Your task to perform on an android device: turn pop-ups off in chrome Image 0: 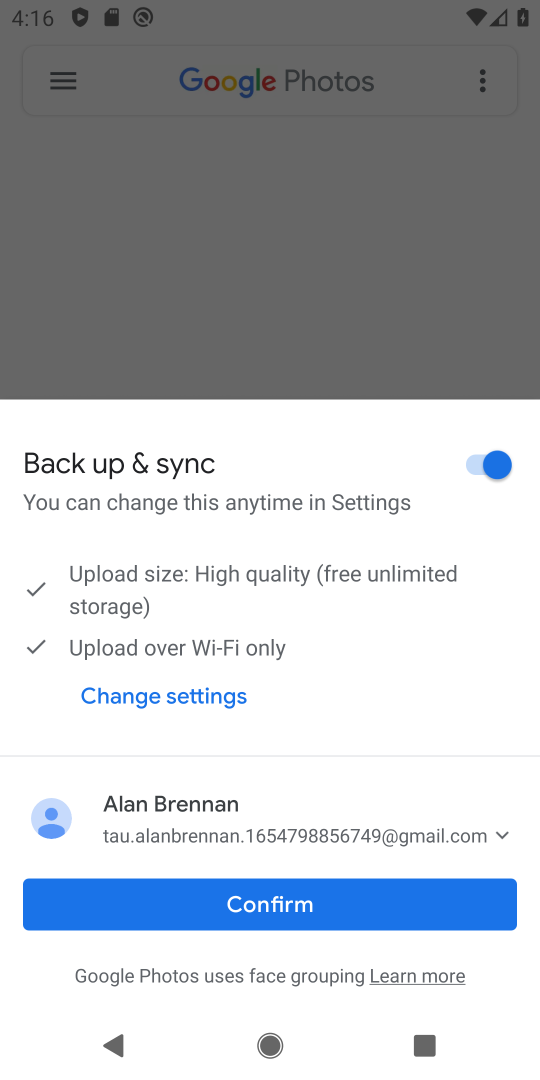
Step 0: press home button
Your task to perform on an android device: turn pop-ups off in chrome Image 1: 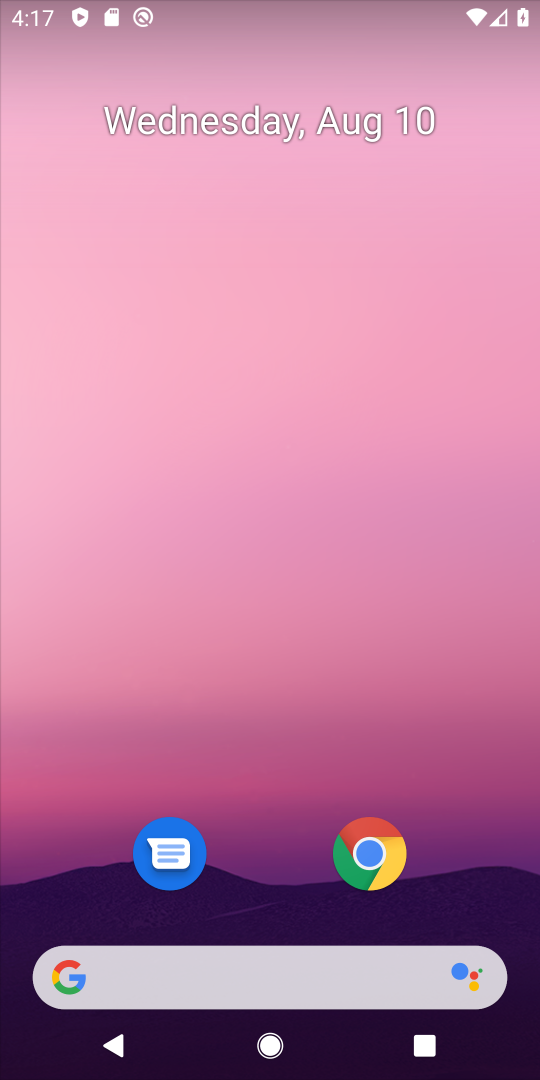
Step 1: click (366, 858)
Your task to perform on an android device: turn pop-ups off in chrome Image 2: 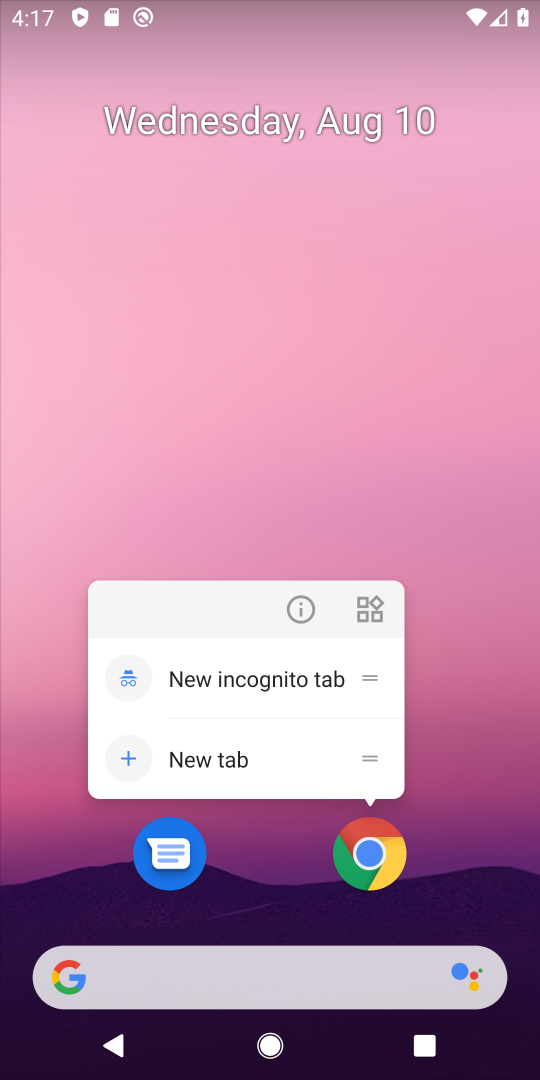
Step 2: click (366, 858)
Your task to perform on an android device: turn pop-ups off in chrome Image 3: 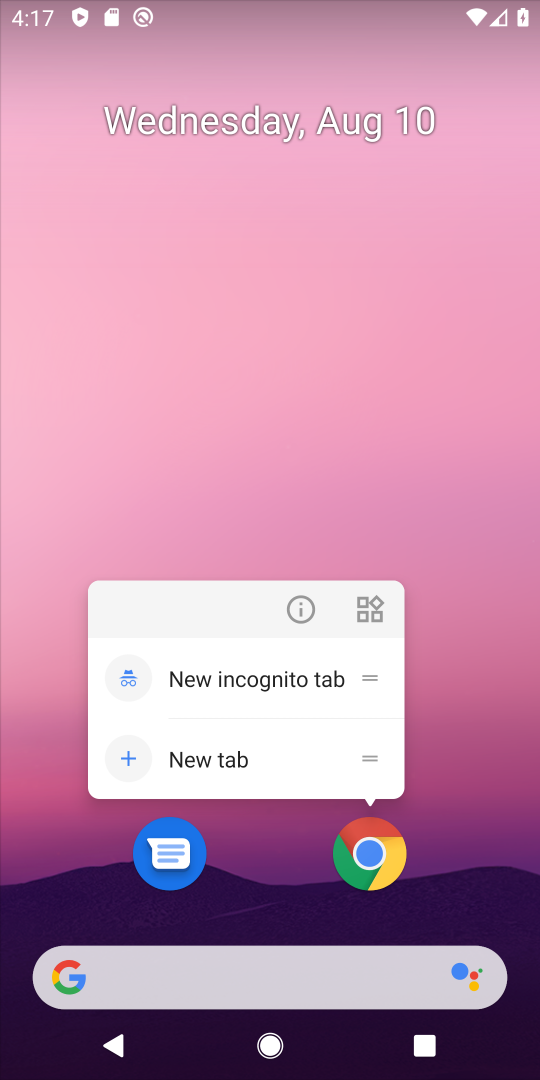
Step 3: task complete